Your task to perform on an android device: open a bookmark in the chrome app Image 0: 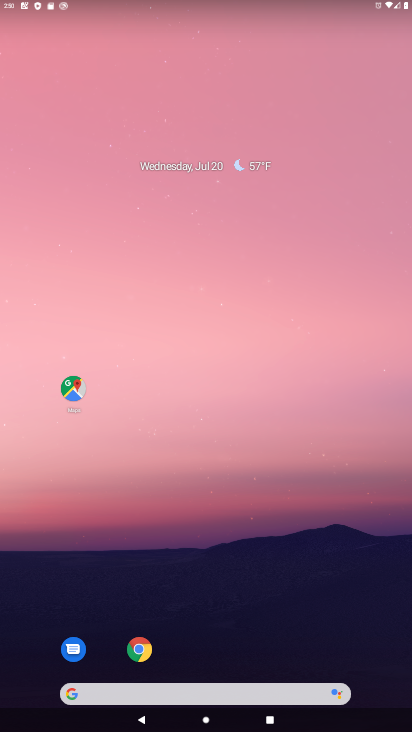
Step 0: click (142, 656)
Your task to perform on an android device: open a bookmark in the chrome app Image 1: 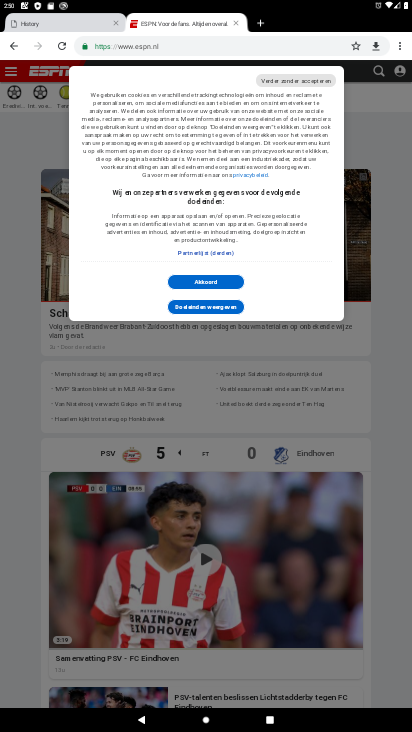
Step 1: click (394, 48)
Your task to perform on an android device: open a bookmark in the chrome app Image 2: 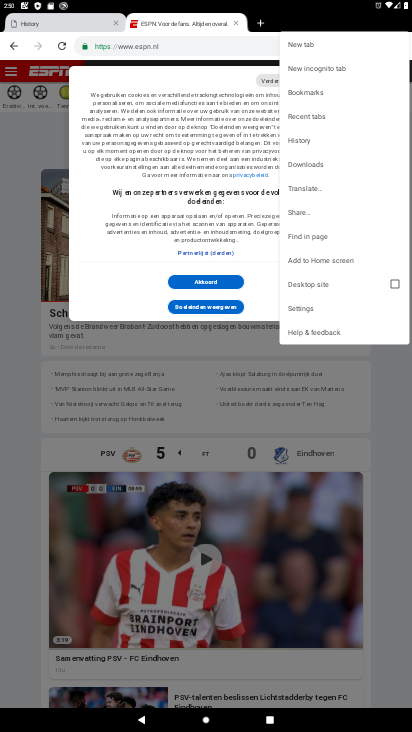
Step 2: click (406, 48)
Your task to perform on an android device: open a bookmark in the chrome app Image 3: 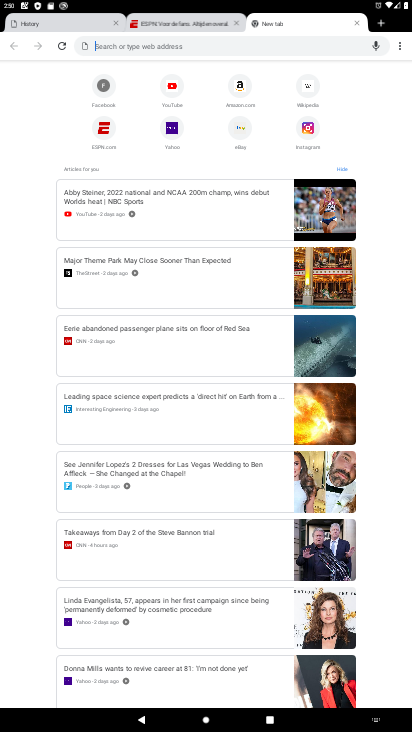
Step 3: click (398, 52)
Your task to perform on an android device: open a bookmark in the chrome app Image 4: 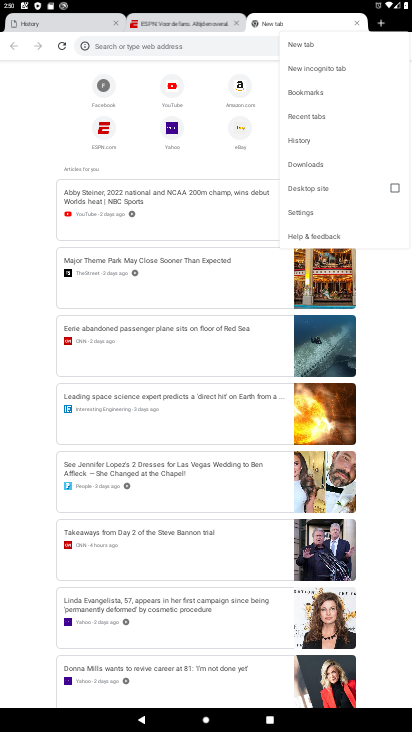
Step 4: click (305, 97)
Your task to perform on an android device: open a bookmark in the chrome app Image 5: 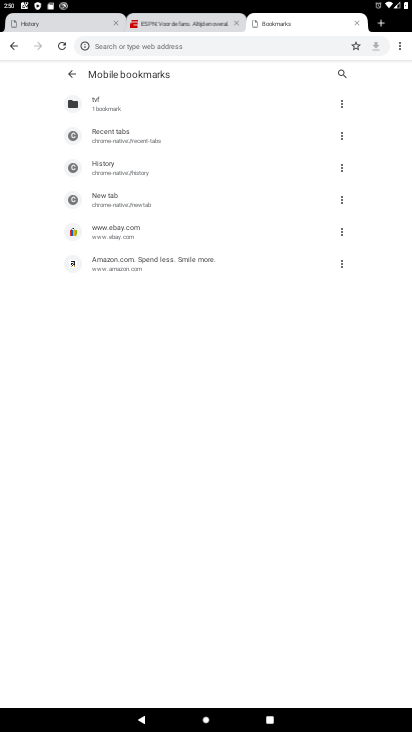
Step 5: click (110, 230)
Your task to perform on an android device: open a bookmark in the chrome app Image 6: 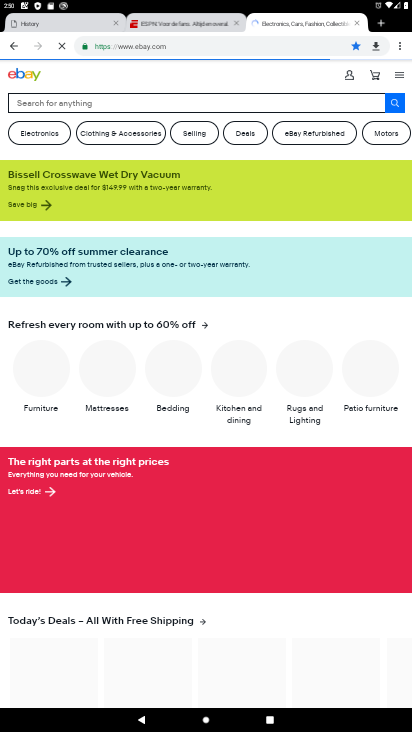
Step 6: task complete